Your task to perform on an android device: Clear the cart on newegg. Image 0: 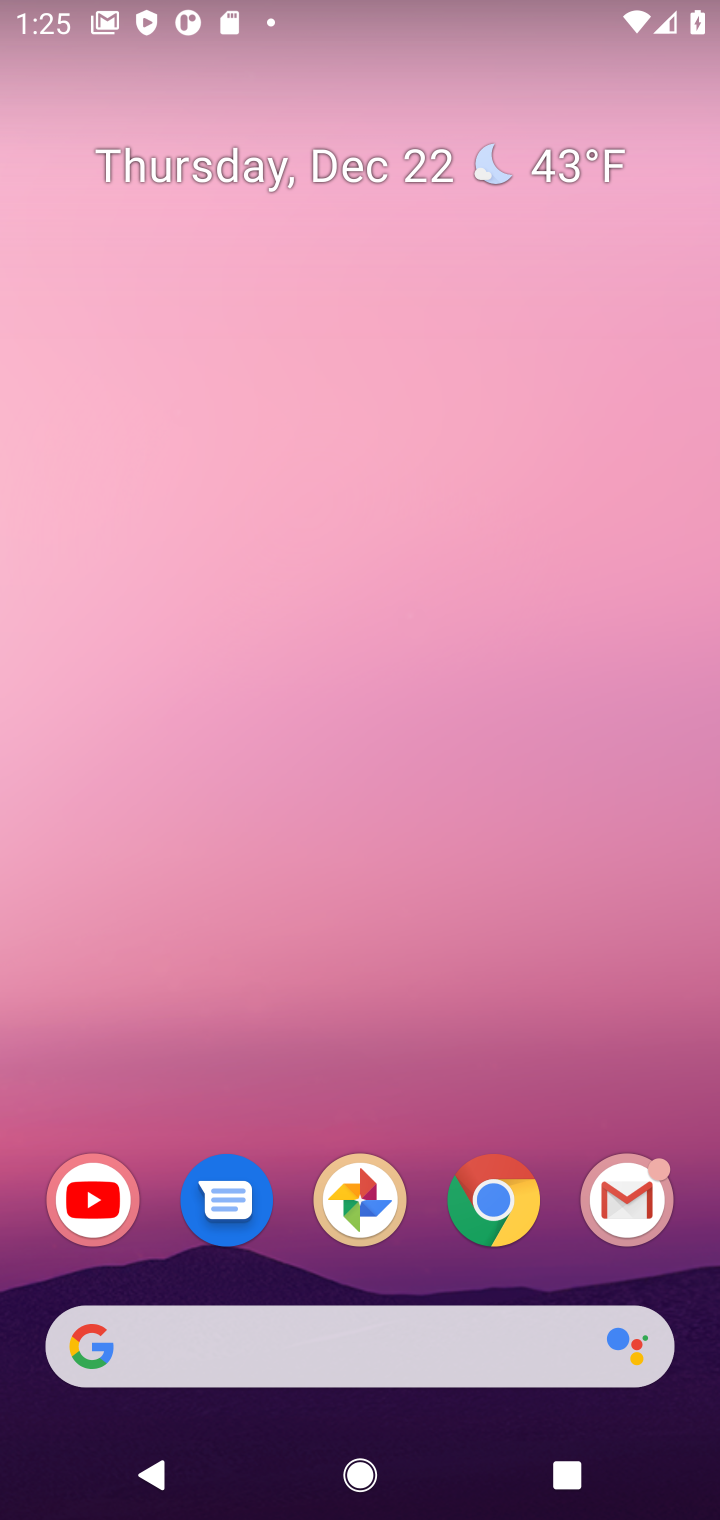
Step 0: click (485, 1199)
Your task to perform on an android device: Clear the cart on newegg. Image 1: 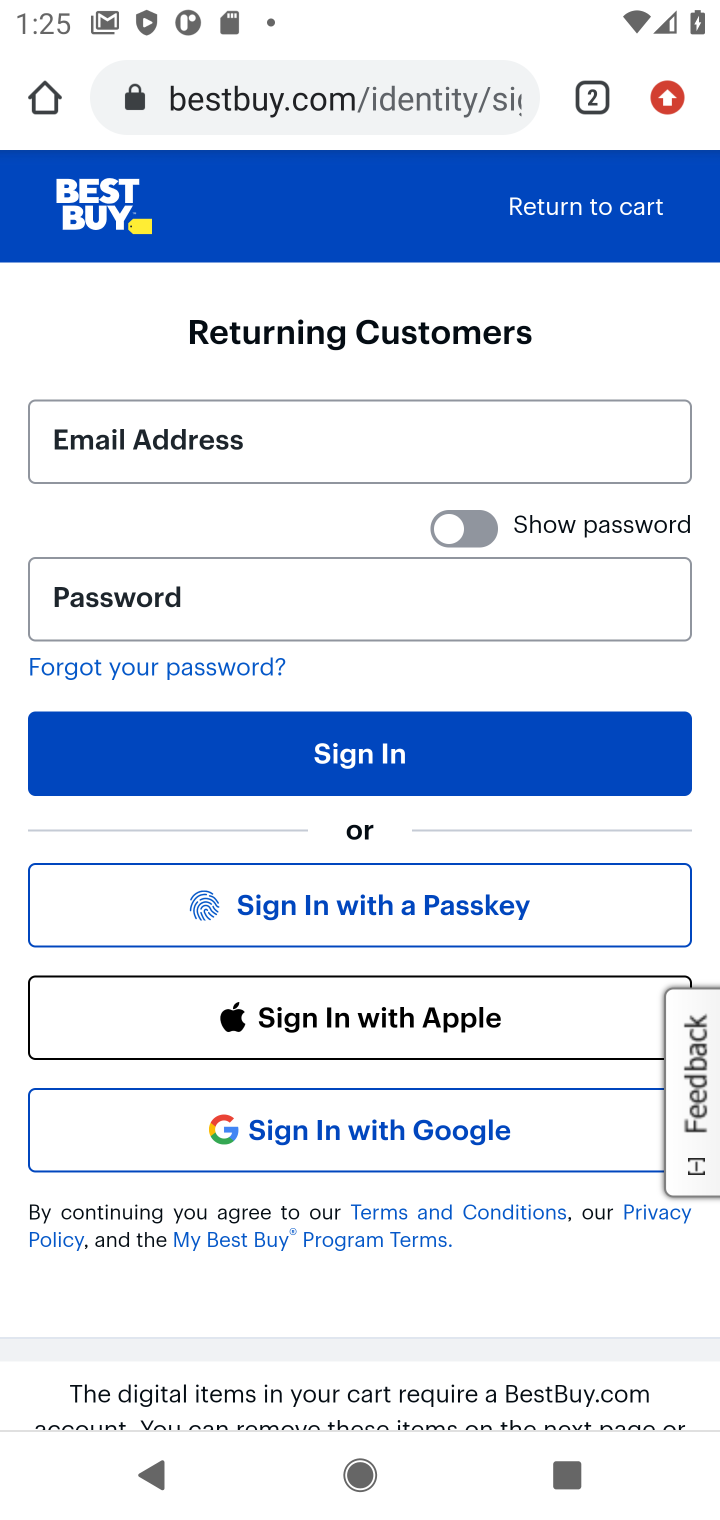
Step 1: click (292, 96)
Your task to perform on an android device: Clear the cart on newegg. Image 2: 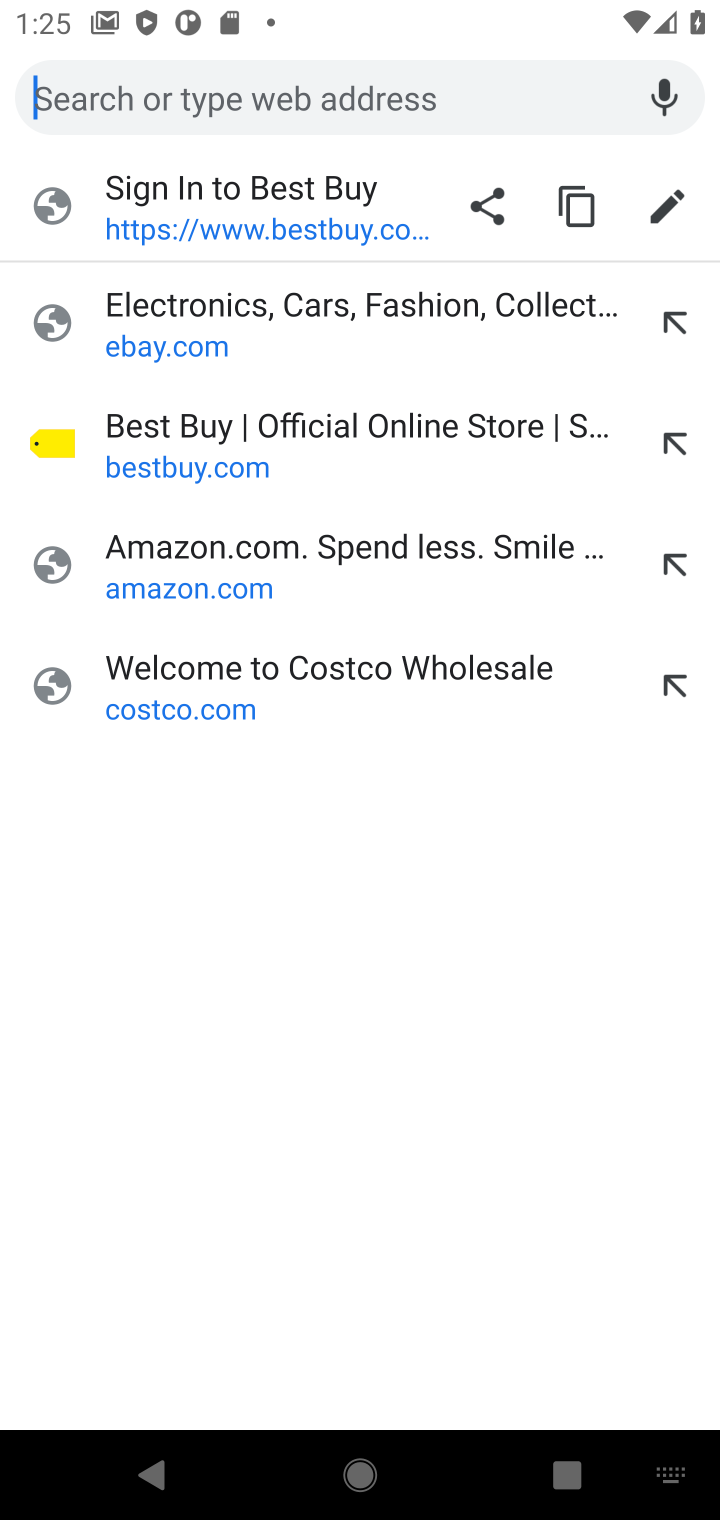
Step 2: type "newegg.com"
Your task to perform on an android device: Clear the cart on newegg. Image 3: 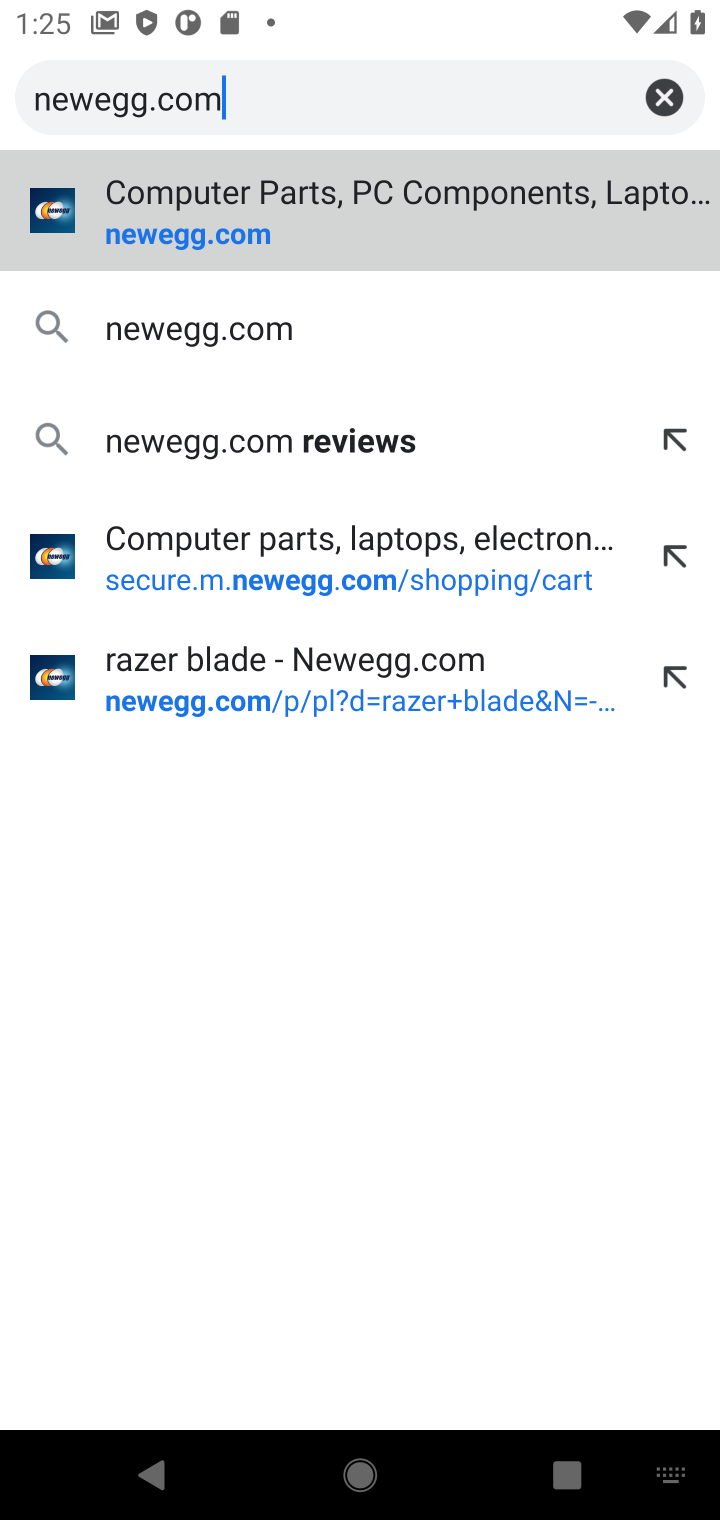
Step 3: click (166, 236)
Your task to perform on an android device: Clear the cart on newegg. Image 4: 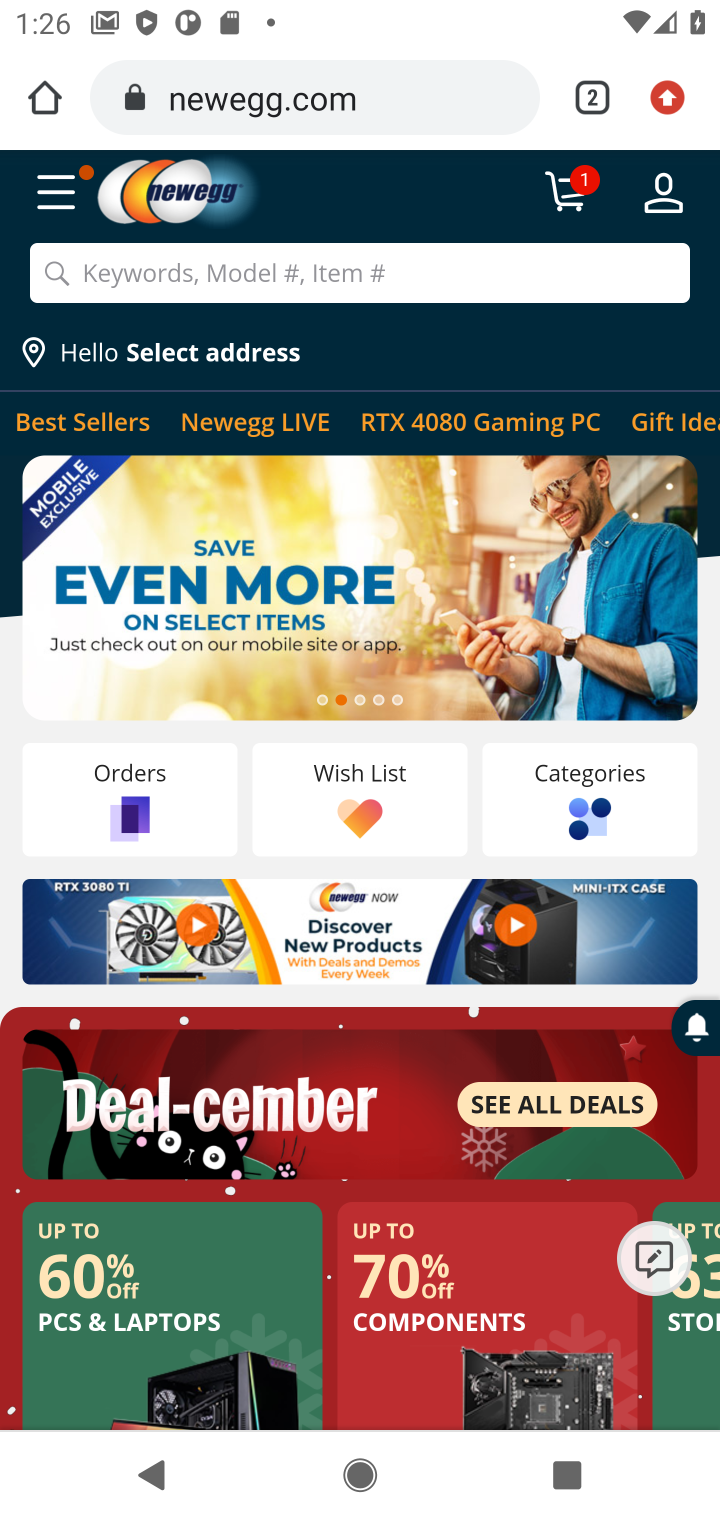
Step 4: click (567, 196)
Your task to perform on an android device: Clear the cart on newegg. Image 5: 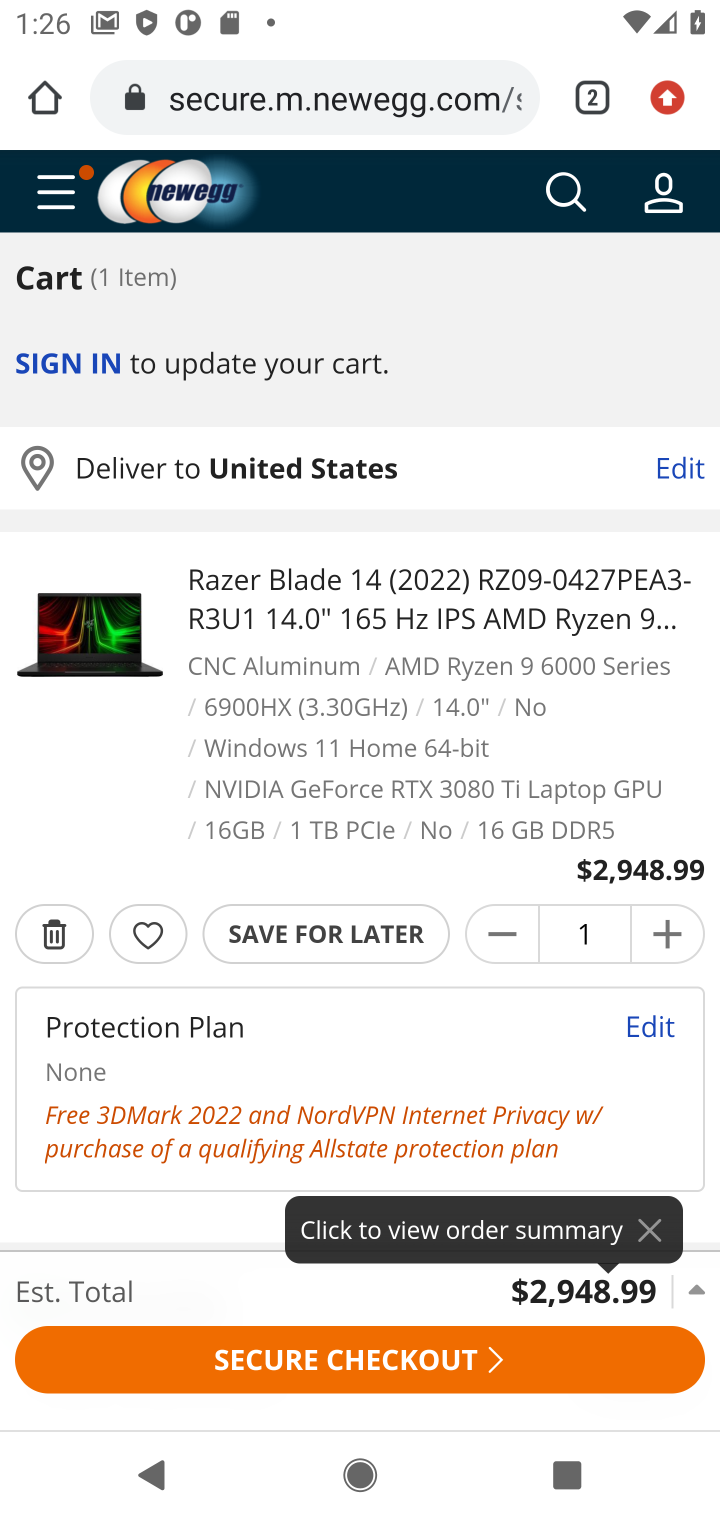
Step 5: click (52, 933)
Your task to perform on an android device: Clear the cart on newegg. Image 6: 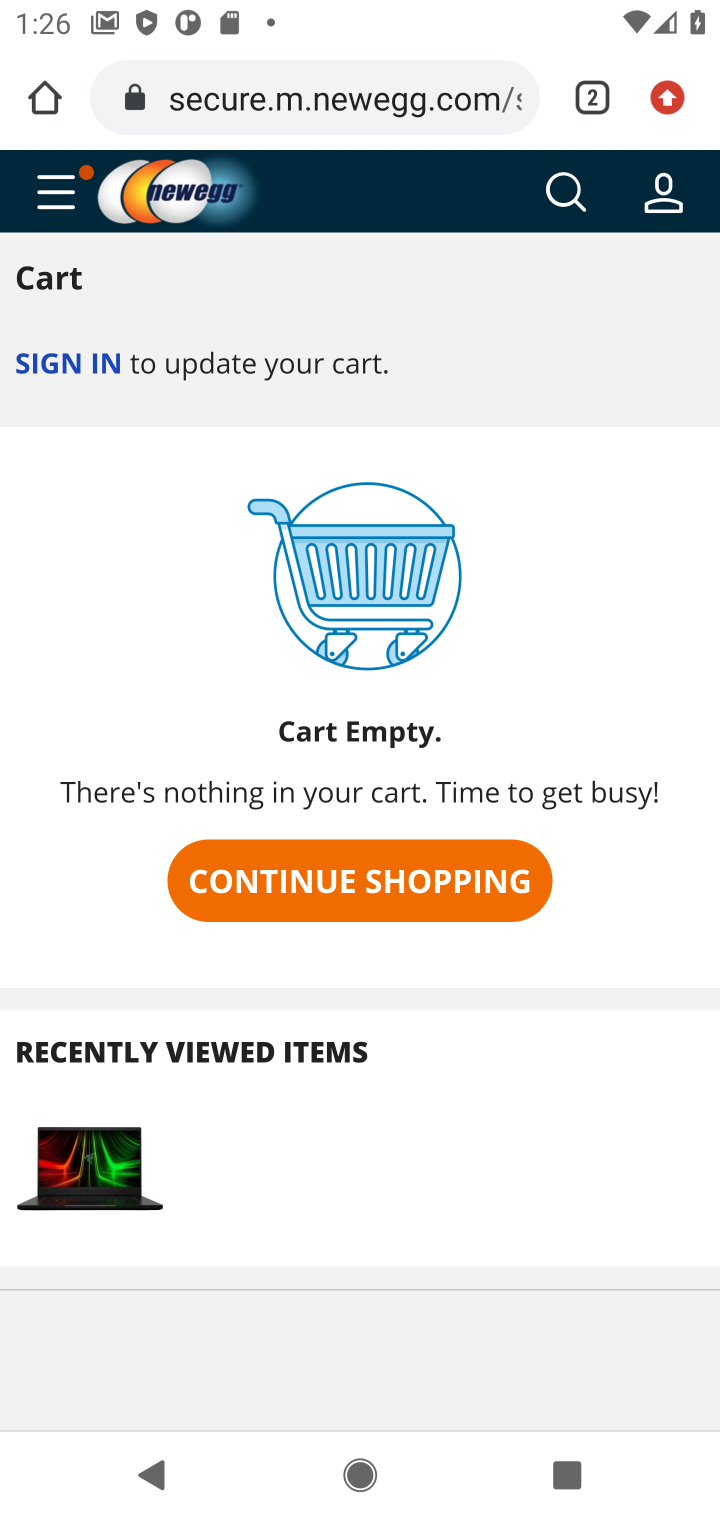
Step 6: task complete